Your task to perform on an android device: What's the weather going to be tomorrow? Image 0: 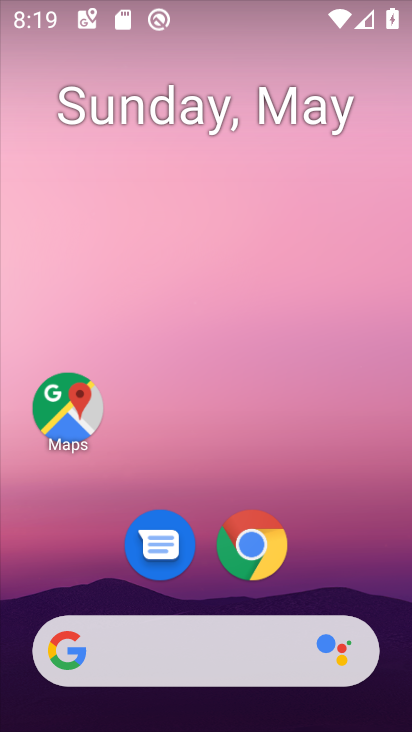
Step 0: click (207, 653)
Your task to perform on an android device: What's the weather going to be tomorrow? Image 1: 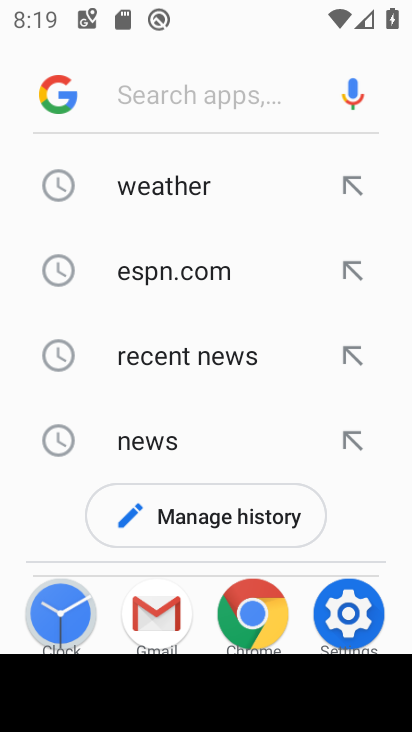
Step 1: click (203, 180)
Your task to perform on an android device: What's the weather going to be tomorrow? Image 2: 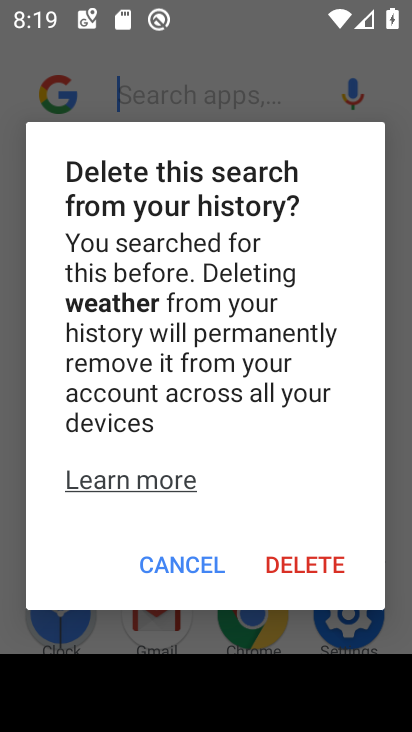
Step 2: click (195, 571)
Your task to perform on an android device: What's the weather going to be tomorrow? Image 3: 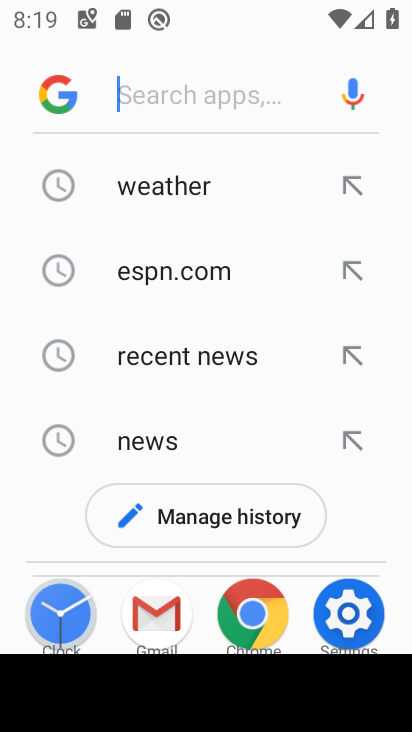
Step 3: click (169, 215)
Your task to perform on an android device: What's the weather going to be tomorrow? Image 4: 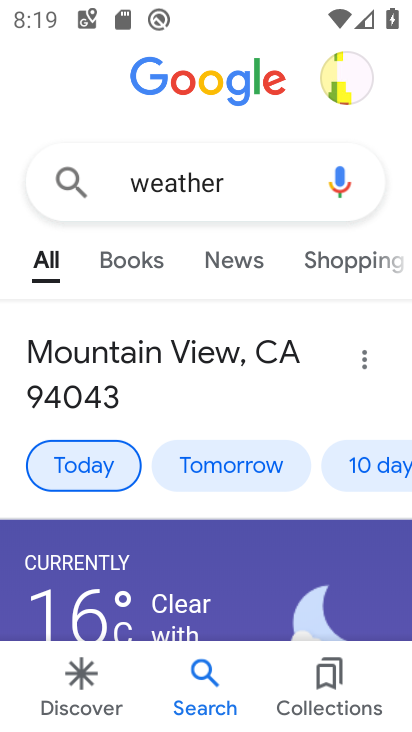
Step 4: click (242, 462)
Your task to perform on an android device: What's the weather going to be tomorrow? Image 5: 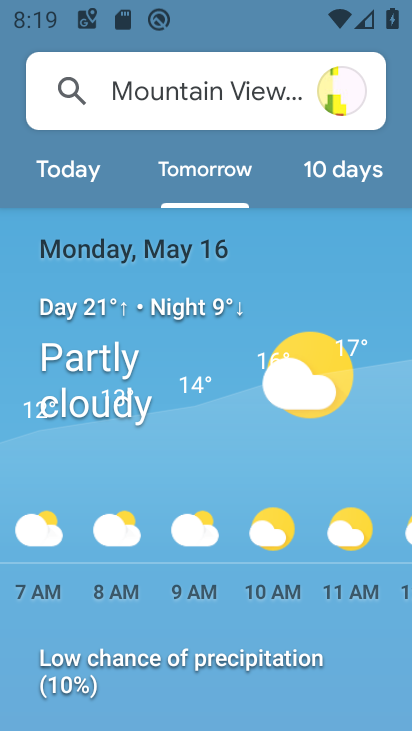
Step 5: task complete